Your task to perform on an android device: empty trash in google photos Image 0: 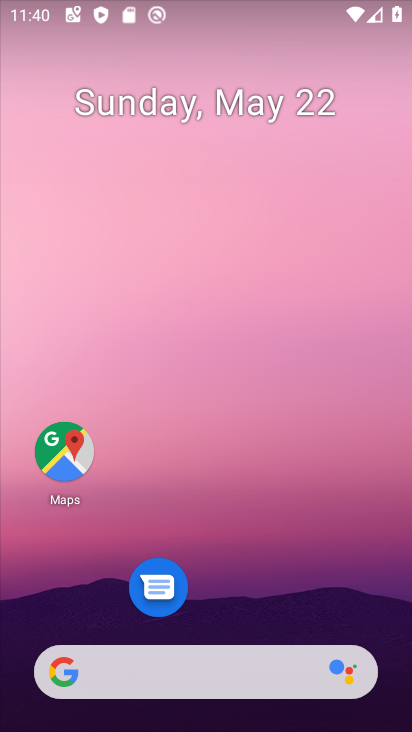
Step 0: drag from (219, 630) to (147, 52)
Your task to perform on an android device: empty trash in google photos Image 1: 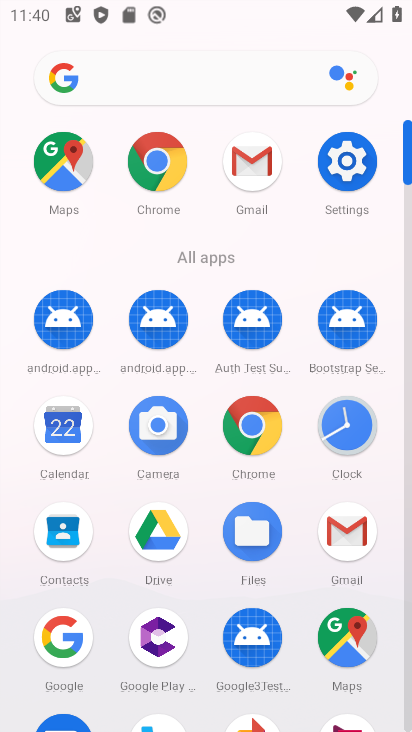
Step 1: click (246, 716)
Your task to perform on an android device: empty trash in google photos Image 2: 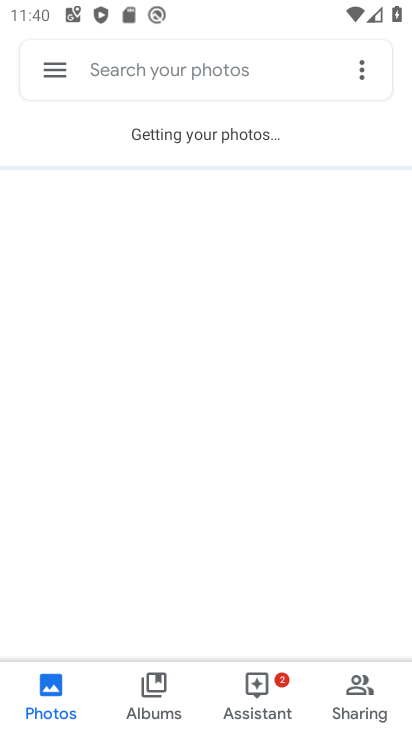
Step 2: click (48, 84)
Your task to perform on an android device: empty trash in google photos Image 3: 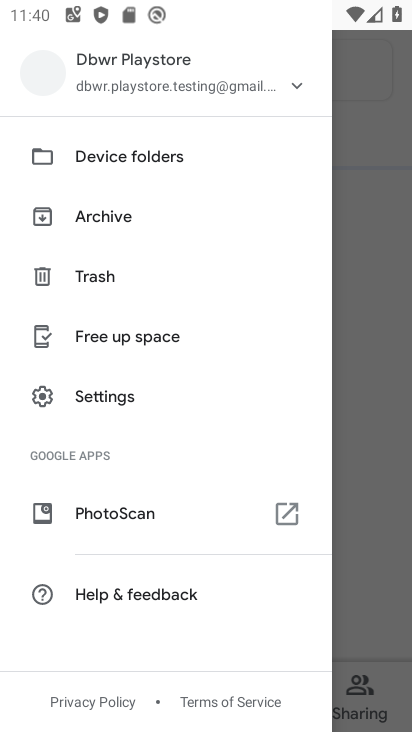
Step 3: click (84, 275)
Your task to perform on an android device: empty trash in google photos Image 4: 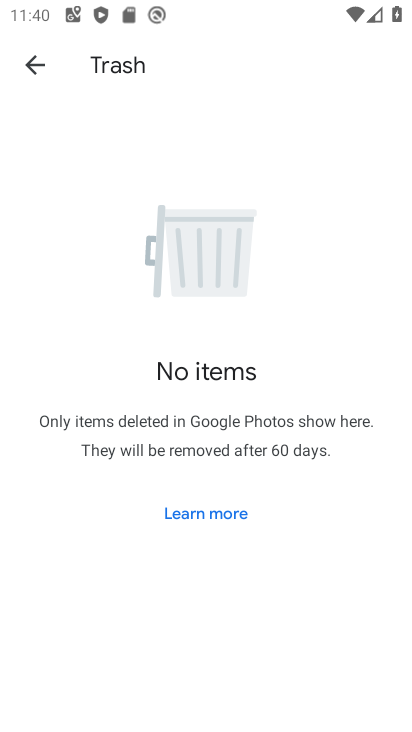
Step 4: task complete